Your task to perform on an android device: star an email in the gmail app Image 0: 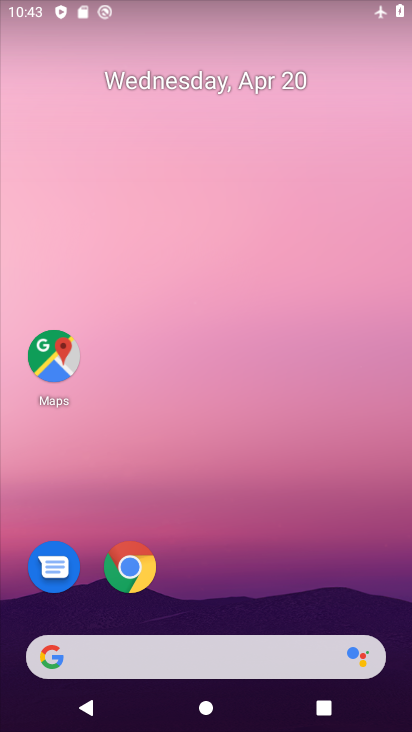
Step 0: drag from (201, 570) to (256, 134)
Your task to perform on an android device: star an email in the gmail app Image 1: 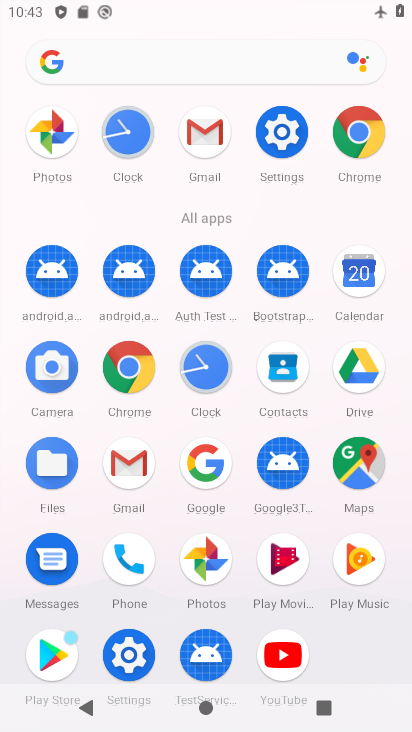
Step 1: click (133, 454)
Your task to perform on an android device: star an email in the gmail app Image 2: 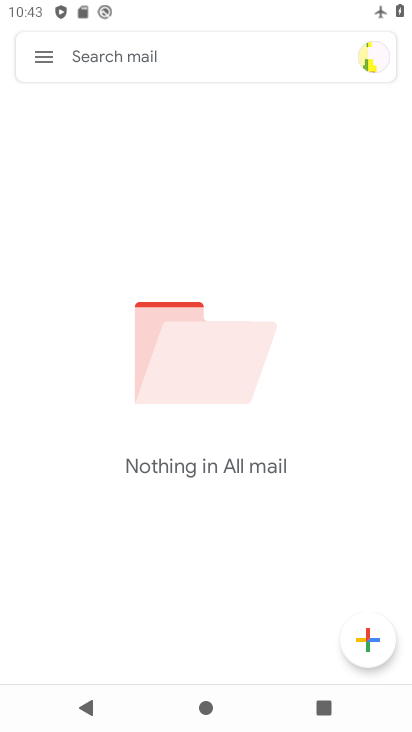
Step 2: click (38, 52)
Your task to perform on an android device: star an email in the gmail app Image 3: 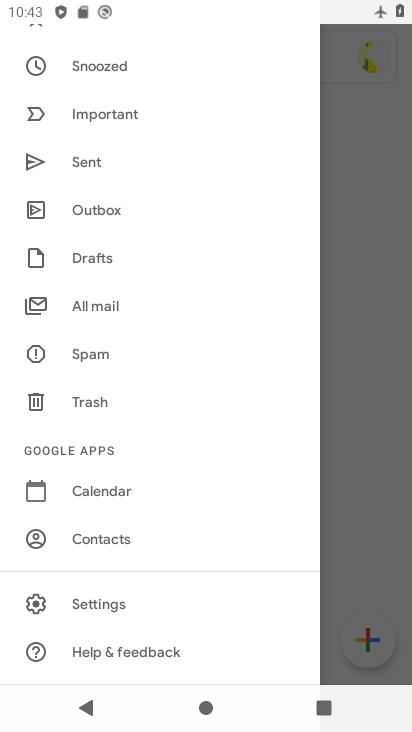
Step 3: drag from (172, 130) to (177, 606)
Your task to perform on an android device: star an email in the gmail app Image 4: 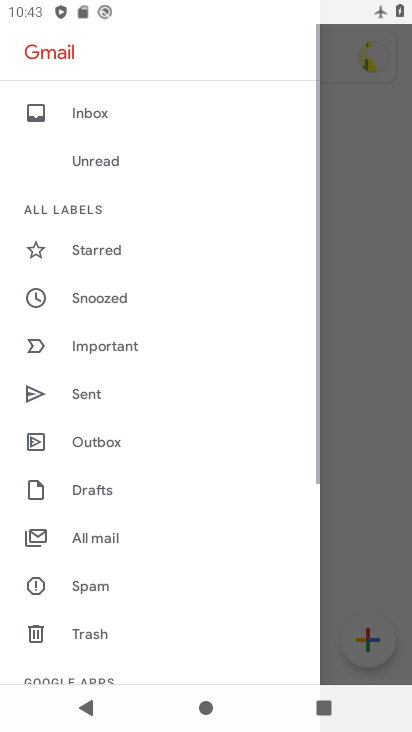
Step 4: click (133, 245)
Your task to perform on an android device: star an email in the gmail app Image 5: 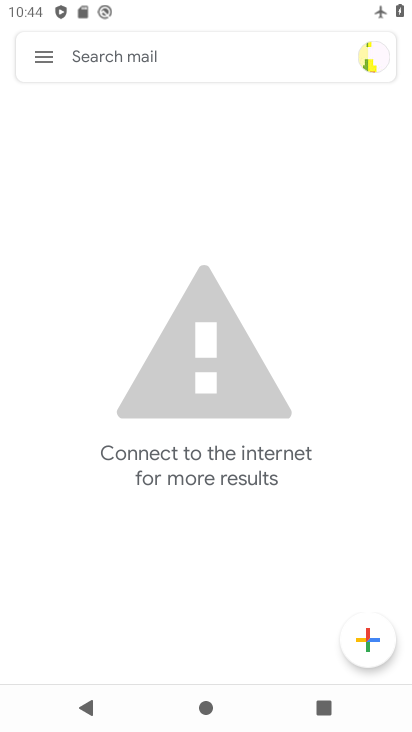
Step 5: task complete